Your task to perform on an android device: check the backup settings in the google photos Image 0: 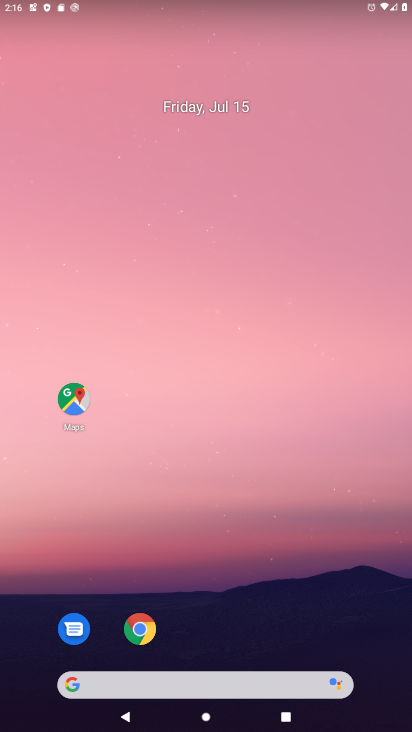
Step 0: drag from (381, 525) to (328, 88)
Your task to perform on an android device: check the backup settings in the google photos Image 1: 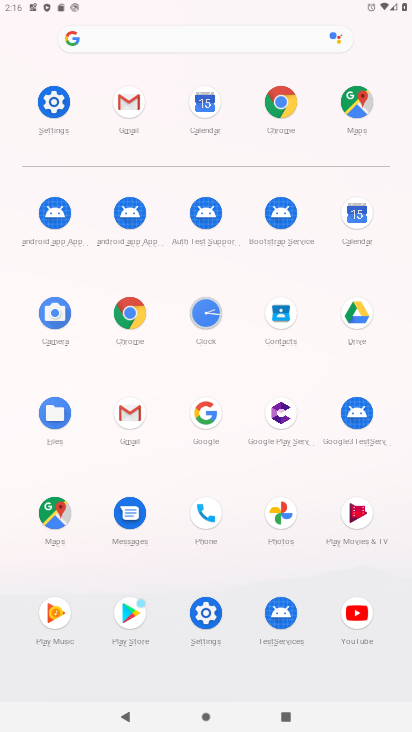
Step 1: click (281, 509)
Your task to perform on an android device: check the backup settings in the google photos Image 2: 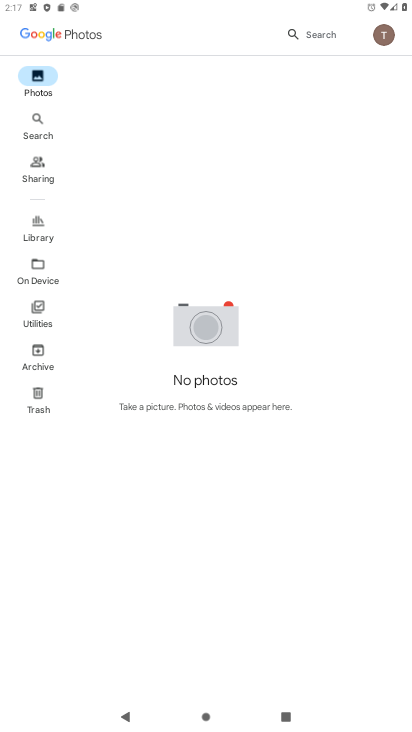
Step 2: click (394, 37)
Your task to perform on an android device: check the backup settings in the google photos Image 3: 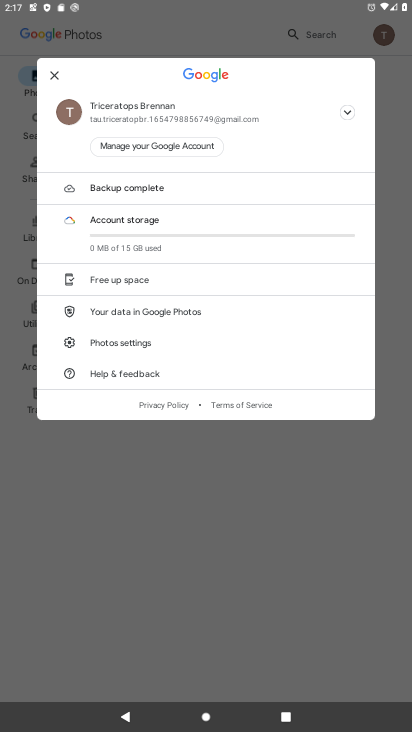
Step 3: click (111, 339)
Your task to perform on an android device: check the backup settings in the google photos Image 4: 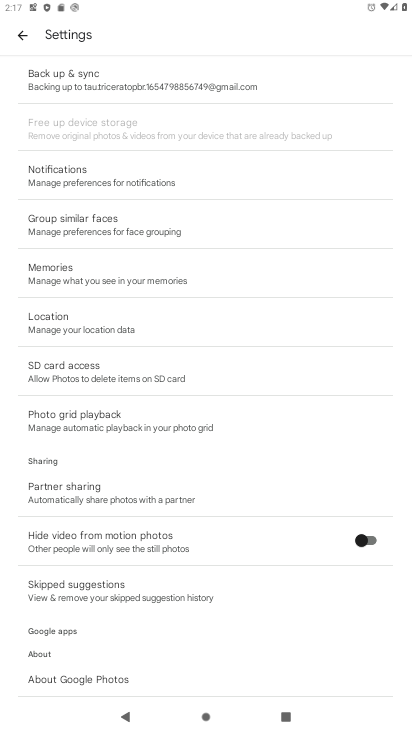
Step 4: click (163, 87)
Your task to perform on an android device: check the backup settings in the google photos Image 5: 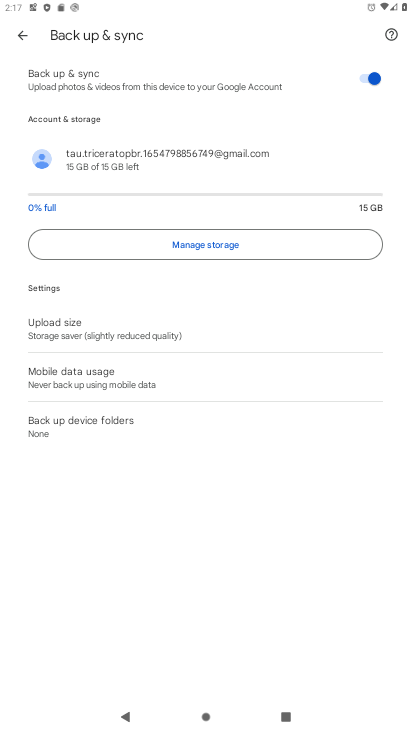
Step 5: task complete